Your task to perform on an android device: Go to Yahoo.com Image 0: 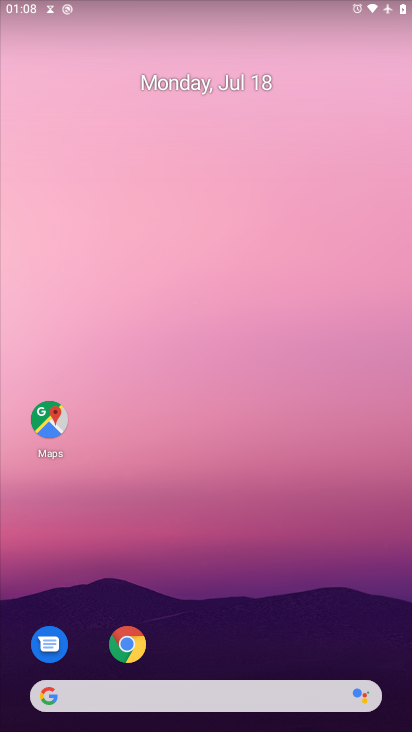
Step 0: press home button
Your task to perform on an android device: Go to Yahoo.com Image 1: 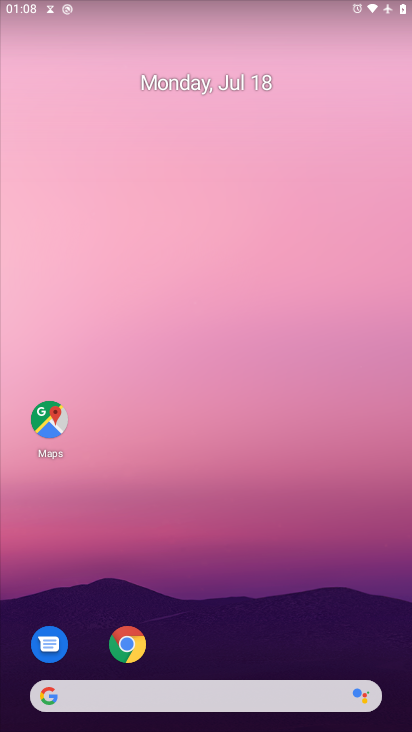
Step 1: click (41, 708)
Your task to perform on an android device: Go to Yahoo.com Image 2: 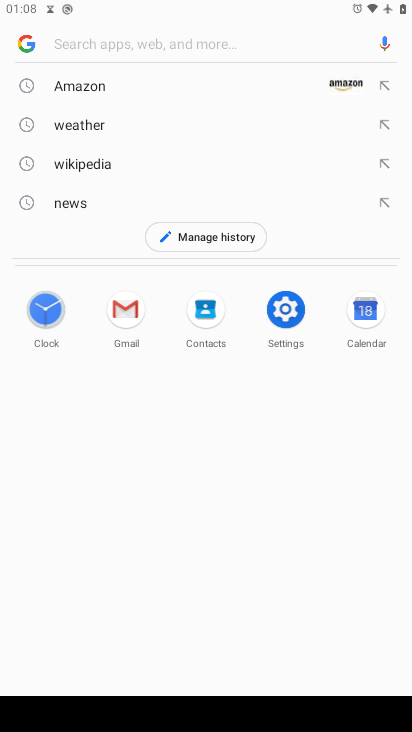
Step 2: type " Yahoo.com"
Your task to perform on an android device: Go to Yahoo.com Image 3: 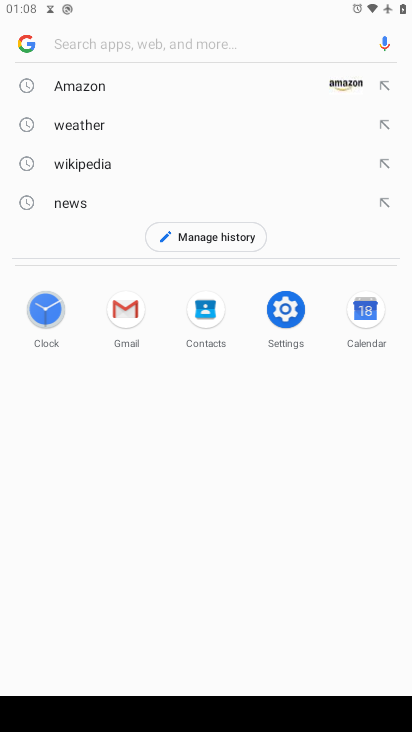
Step 3: click (172, 29)
Your task to perform on an android device: Go to Yahoo.com Image 4: 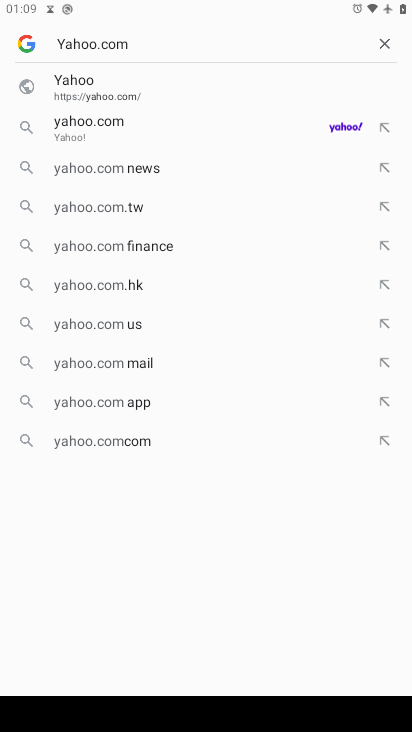
Step 4: click (80, 82)
Your task to perform on an android device: Go to Yahoo.com Image 5: 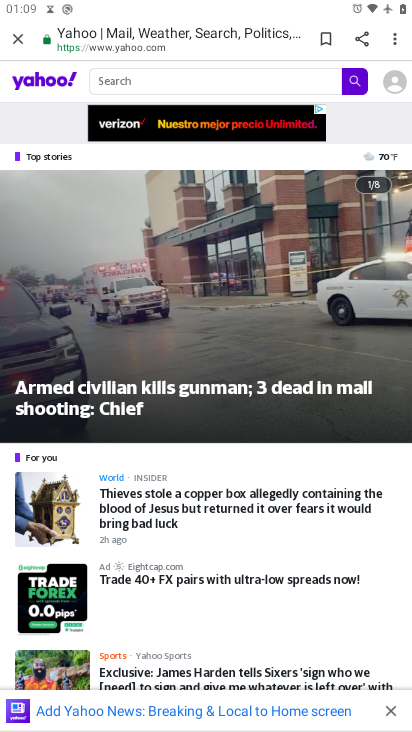
Step 5: task complete